Your task to perform on an android device: Open privacy settings Image 0: 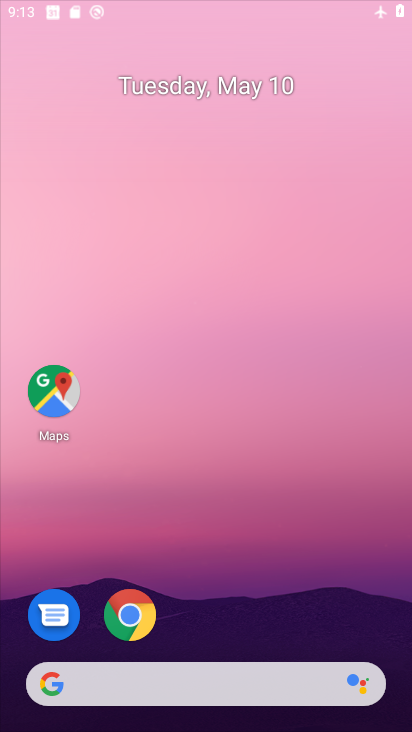
Step 0: click (188, 235)
Your task to perform on an android device: Open privacy settings Image 1: 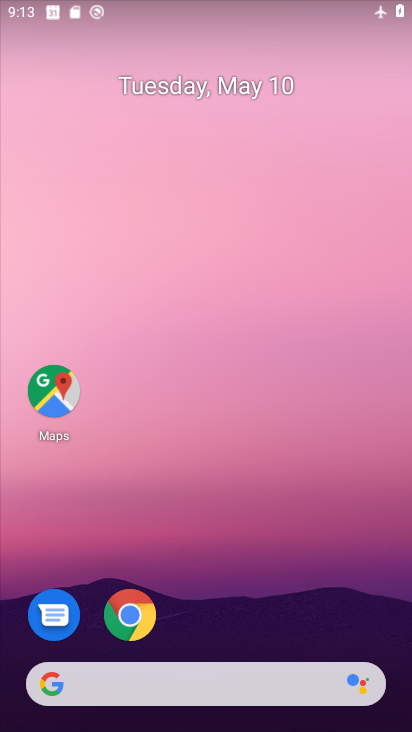
Step 1: drag from (230, 617) to (229, 37)
Your task to perform on an android device: Open privacy settings Image 2: 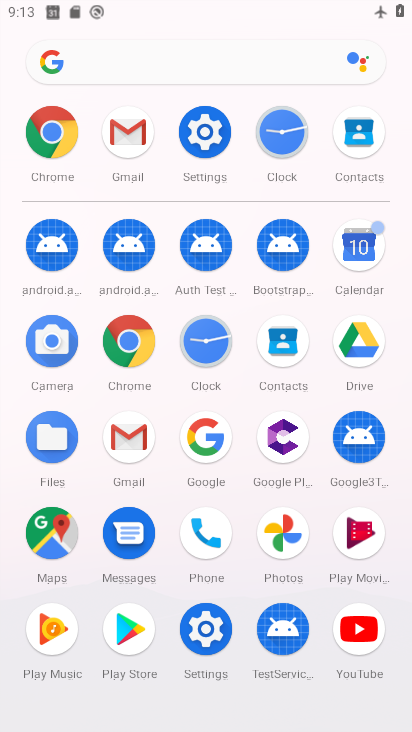
Step 2: click (197, 139)
Your task to perform on an android device: Open privacy settings Image 3: 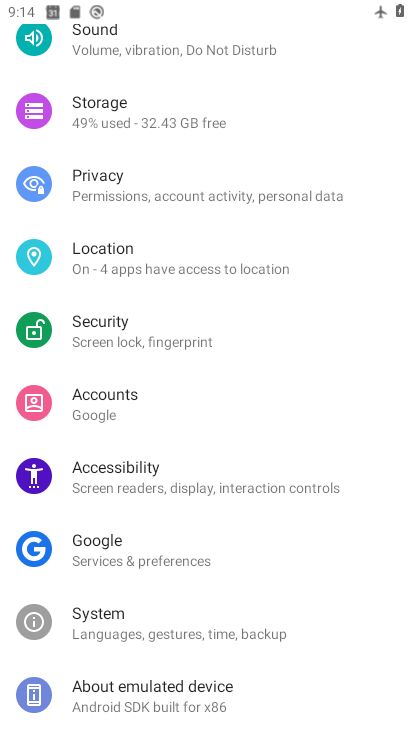
Step 3: click (118, 192)
Your task to perform on an android device: Open privacy settings Image 4: 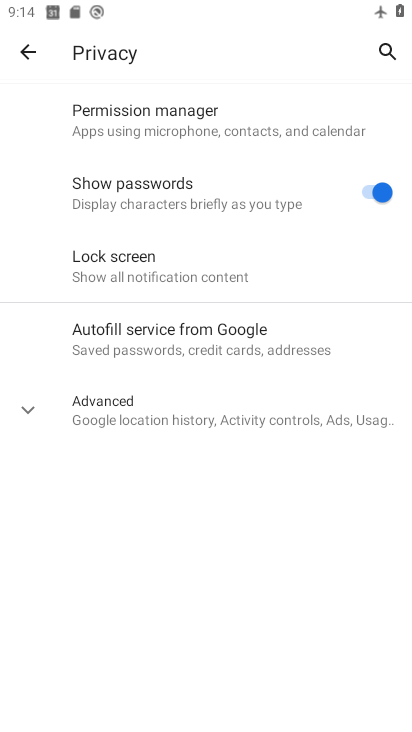
Step 4: task complete